Your task to perform on an android device: Open my contact list Image 0: 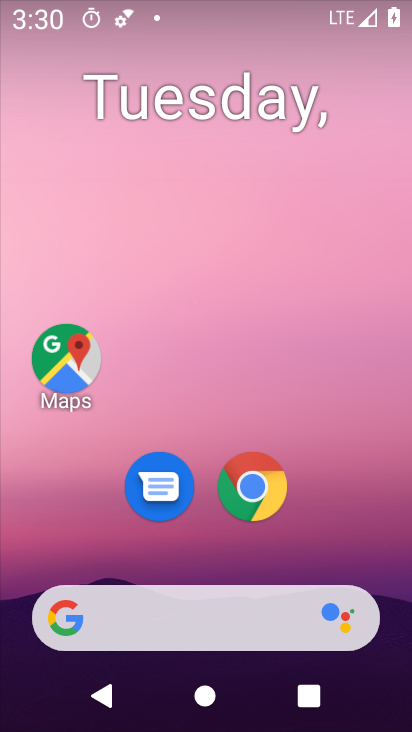
Step 0: press home button
Your task to perform on an android device: Open my contact list Image 1: 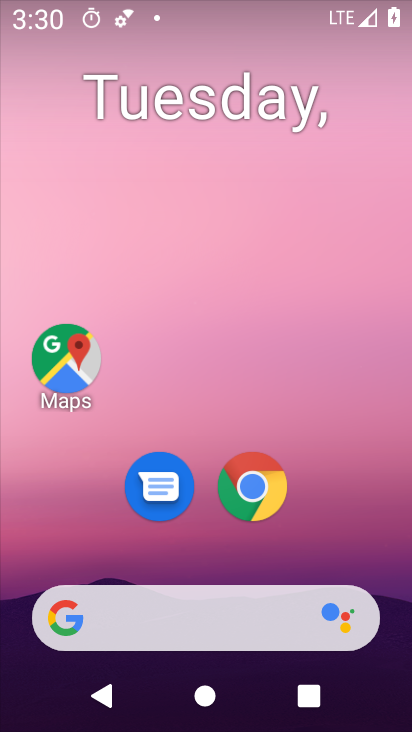
Step 1: drag from (366, 549) to (370, 37)
Your task to perform on an android device: Open my contact list Image 2: 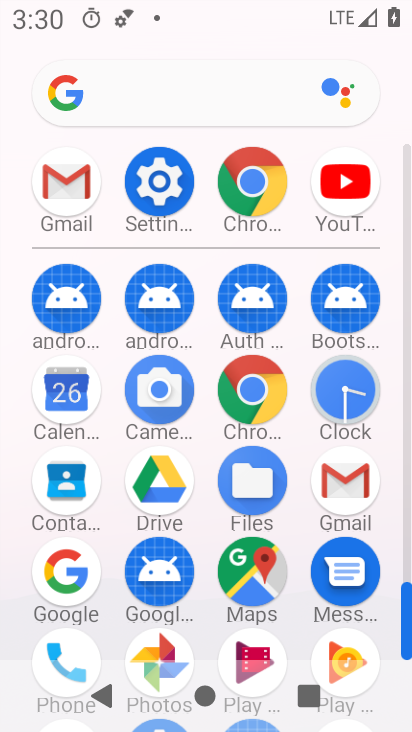
Step 2: click (63, 477)
Your task to perform on an android device: Open my contact list Image 3: 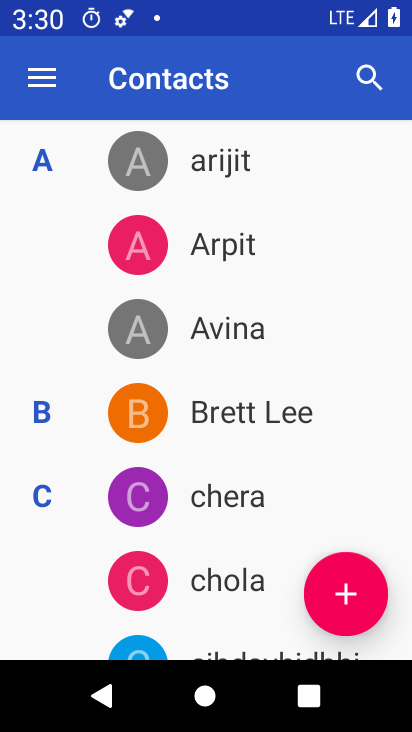
Step 3: task complete